Your task to perform on an android device: Open internet settings Image 0: 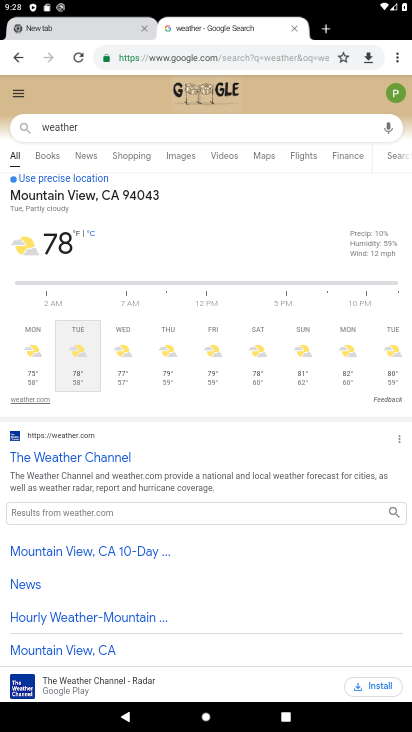
Step 0: press home button
Your task to perform on an android device: Open internet settings Image 1: 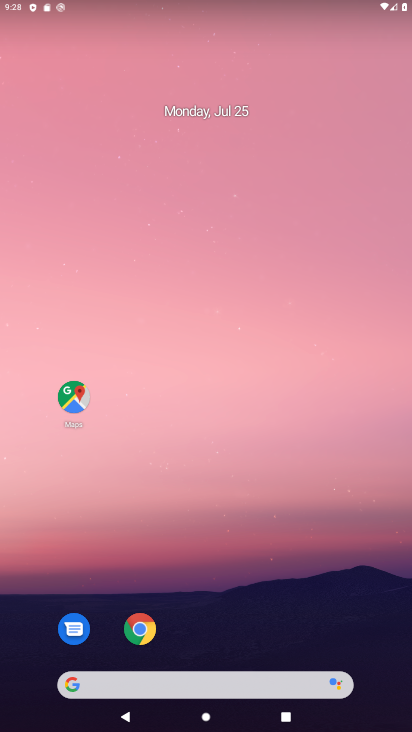
Step 1: drag from (331, 547) to (242, 8)
Your task to perform on an android device: Open internet settings Image 2: 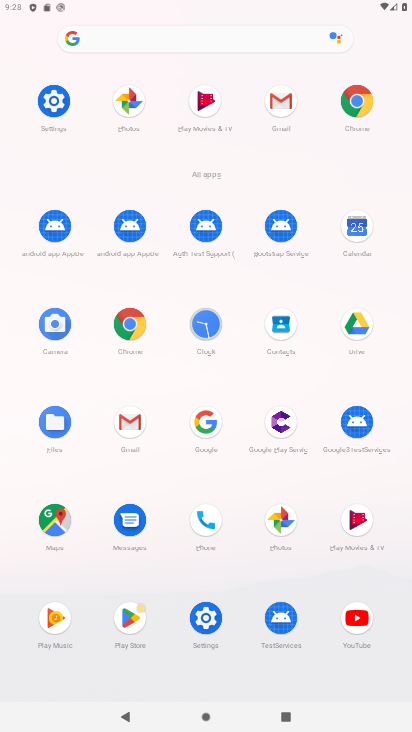
Step 2: click (56, 90)
Your task to perform on an android device: Open internet settings Image 3: 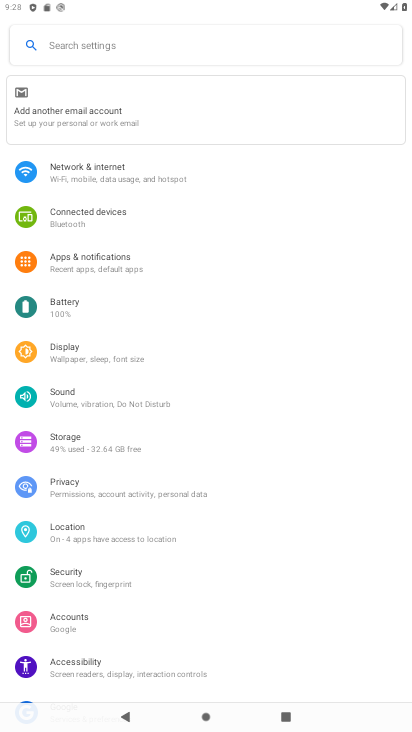
Step 3: click (74, 167)
Your task to perform on an android device: Open internet settings Image 4: 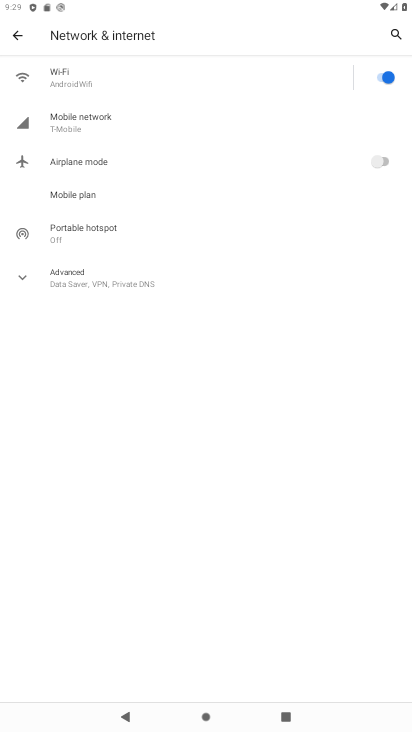
Step 4: click (170, 290)
Your task to perform on an android device: Open internet settings Image 5: 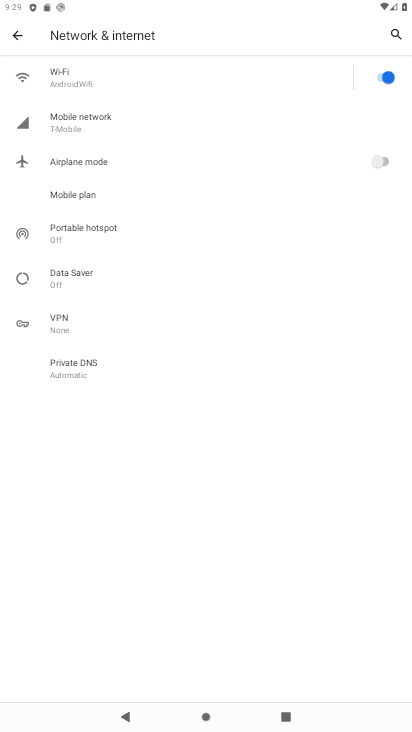
Step 5: task complete